Your task to perform on an android device: turn on translation in the chrome app Image 0: 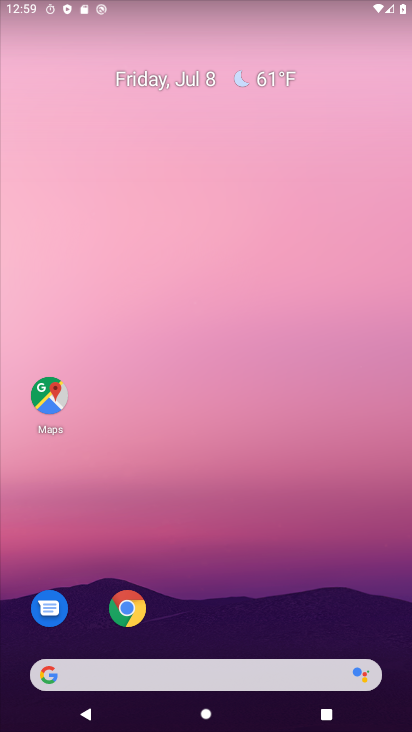
Step 0: click (126, 610)
Your task to perform on an android device: turn on translation in the chrome app Image 1: 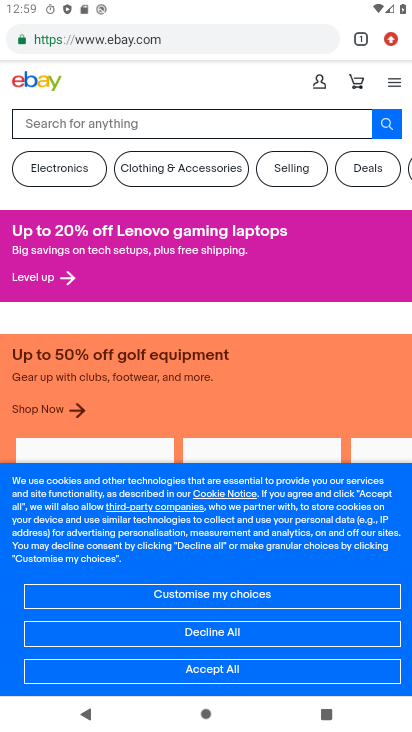
Step 1: click (387, 37)
Your task to perform on an android device: turn on translation in the chrome app Image 2: 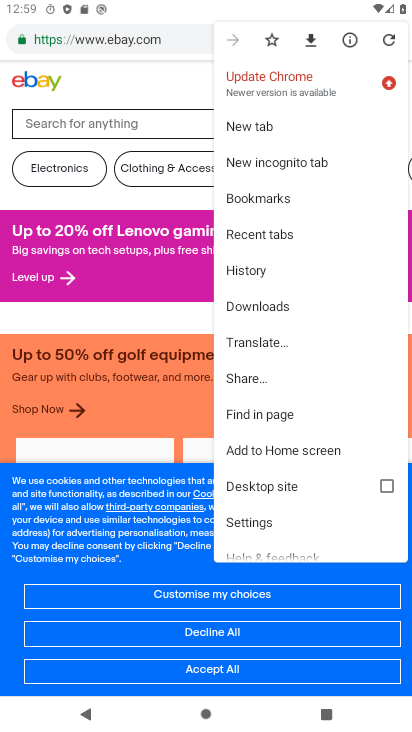
Step 2: click (279, 524)
Your task to perform on an android device: turn on translation in the chrome app Image 3: 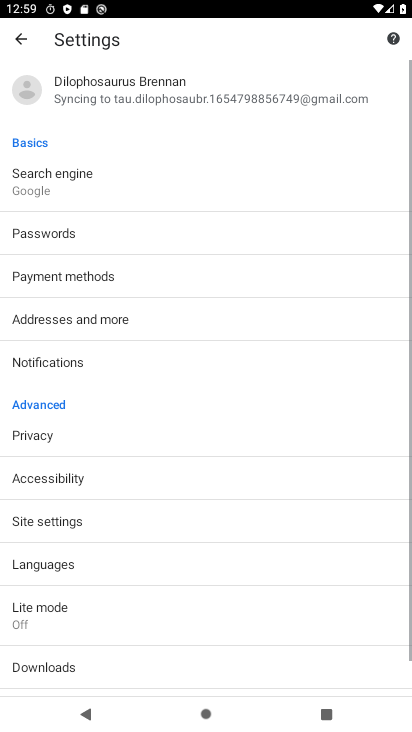
Step 3: click (77, 560)
Your task to perform on an android device: turn on translation in the chrome app Image 4: 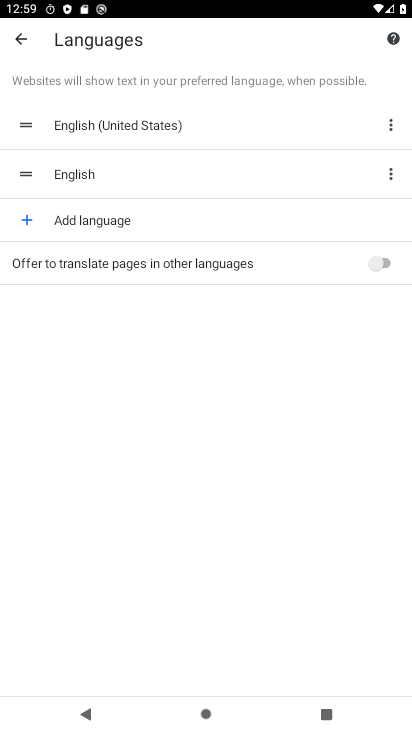
Step 4: click (388, 269)
Your task to perform on an android device: turn on translation in the chrome app Image 5: 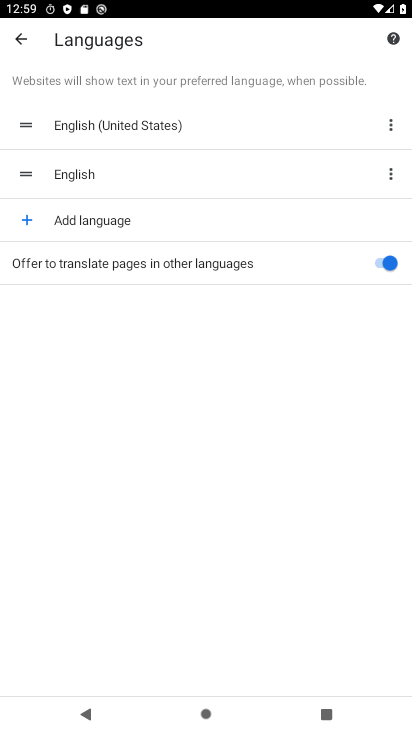
Step 5: task complete